Your task to perform on an android device: visit the assistant section in the google photos Image 0: 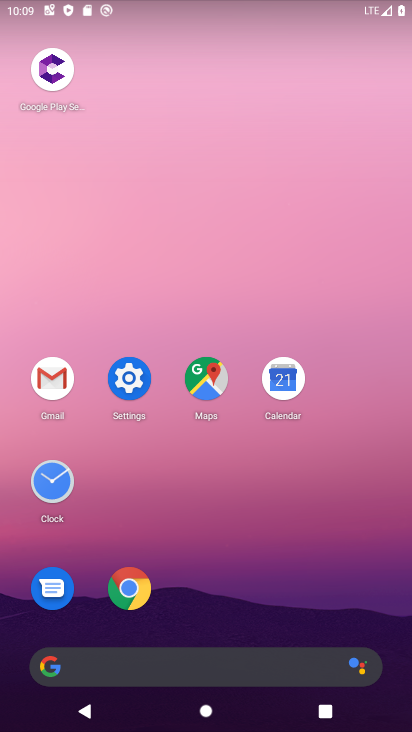
Step 0: drag from (399, 696) to (346, 142)
Your task to perform on an android device: visit the assistant section in the google photos Image 1: 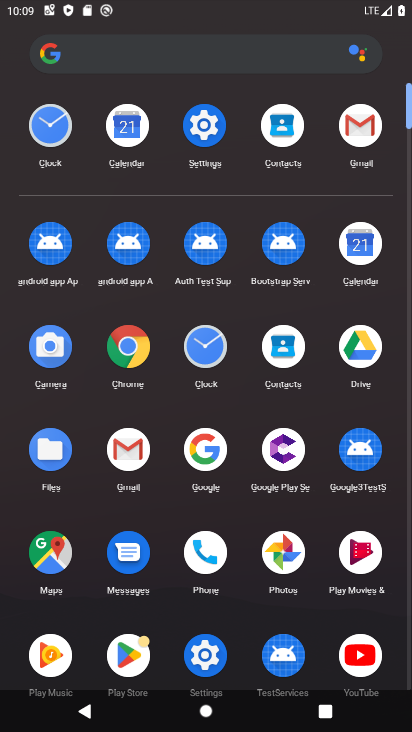
Step 1: click (281, 545)
Your task to perform on an android device: visit the assistant section in the google photos Image 2: 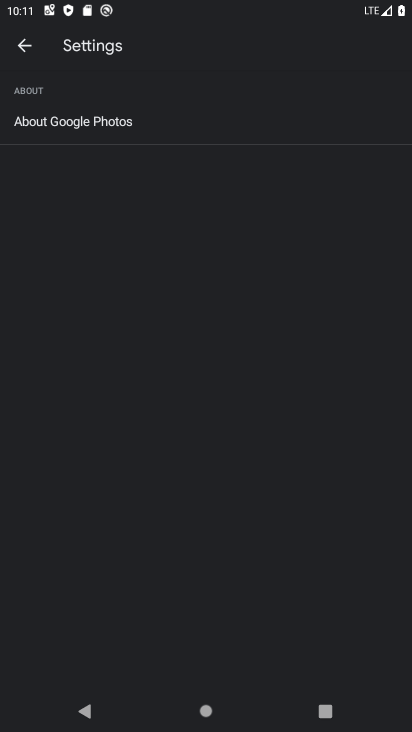
Step 2: press home button
Your task to perform on an android device: visit the assistant section in the google photos Image 3: 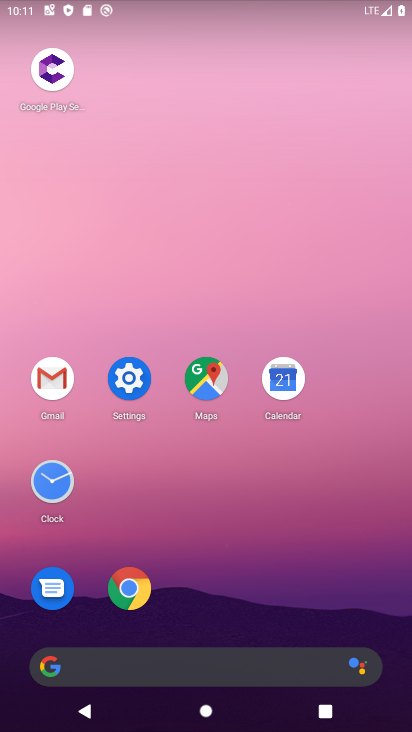
Step 3: drag from (400, 660) to (350, 81)
Your task to perform on an android device: visit the assistant section in the google photos Image 4: 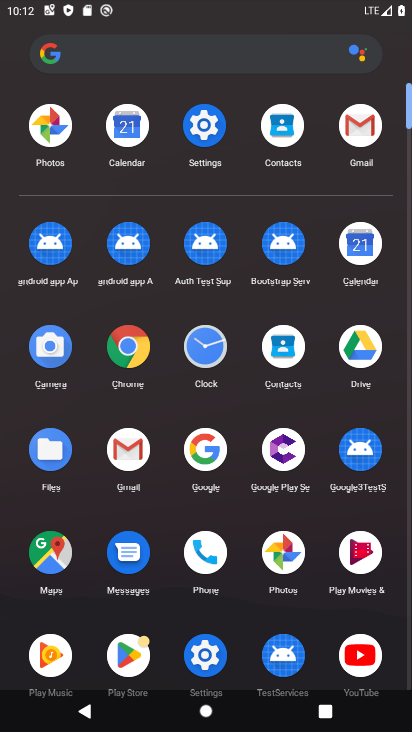
Step 4: click (282, 550)
Your task to perform on an android device: visit the assistant section in the google photos Image 5: 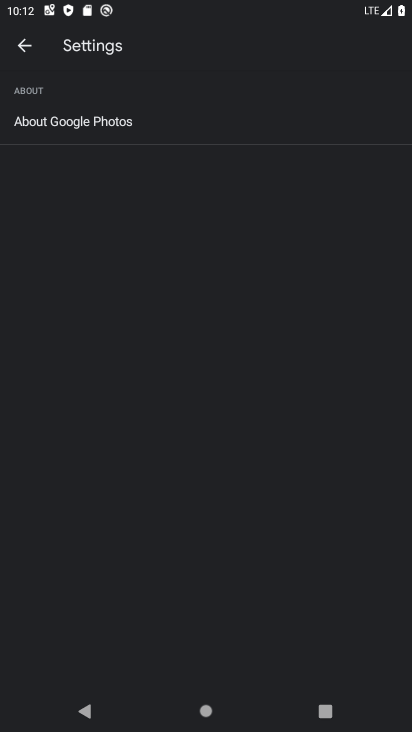
Step 5: click (15, 48)
Your task to perform on an android device: visit the assistant section in the google photos Image 6: 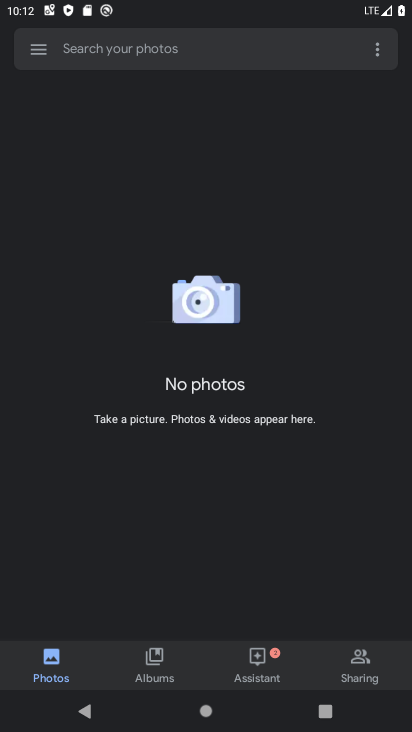
Step 6: click (241, 666)
Your task to perform on an android device: visit the assistant section in the google photos Image 7: 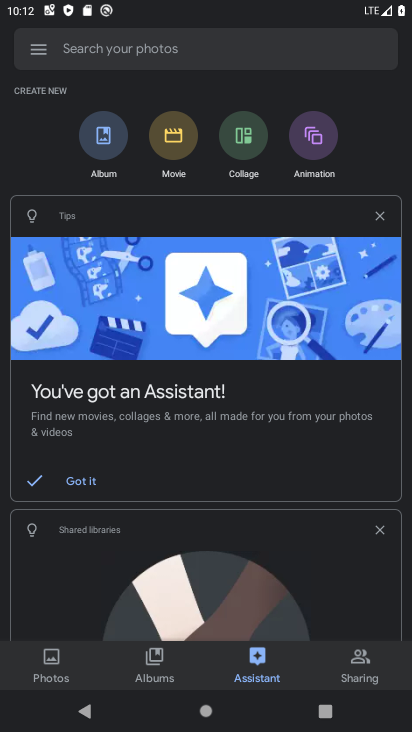
Step 7: task complete